Your task to perform on an android device: Open the web browser Image 0: 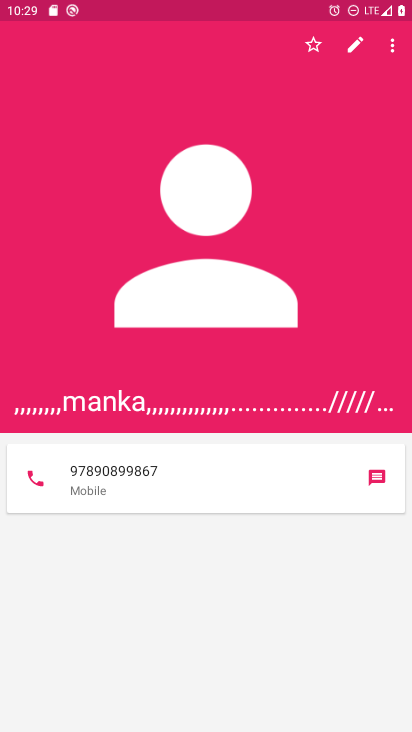
Step 0: press home button
Your task to perform on an android device: Open the web browser Image 1: 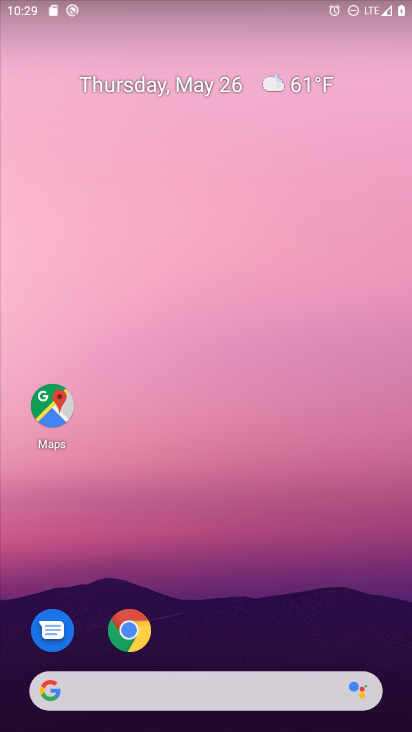
Step 1: click (207, 680)
Your task to perform on an android device: Open the web browser Image 2: 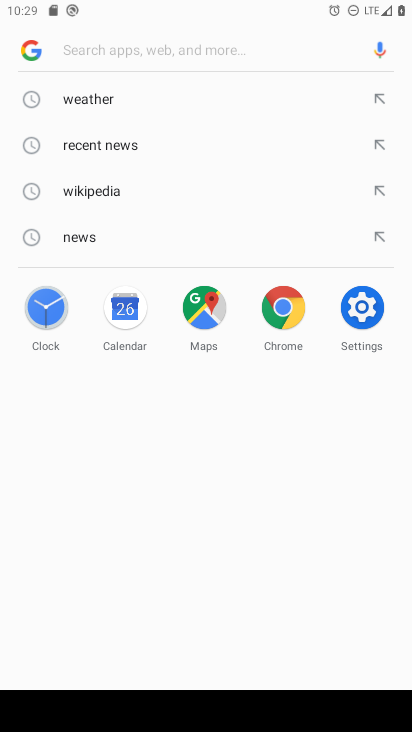
Step 2: task complete